Your task to perform on an android device: Go to wifi settings Image 0: 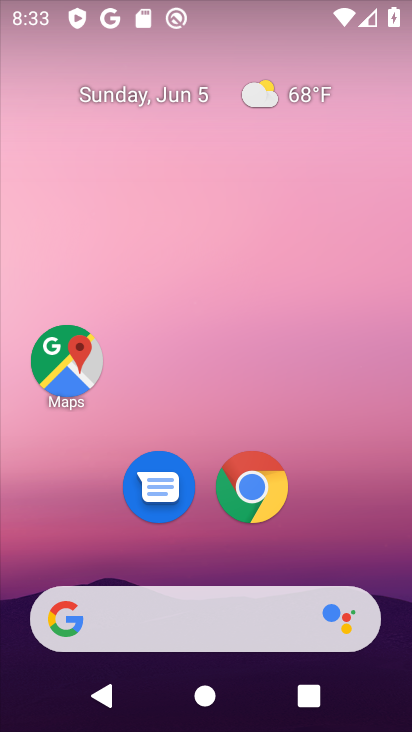
Step 0: drag from (129, 38) to (192, 524)
Your task to perform on an android device: Go to wifi settings Image 1: 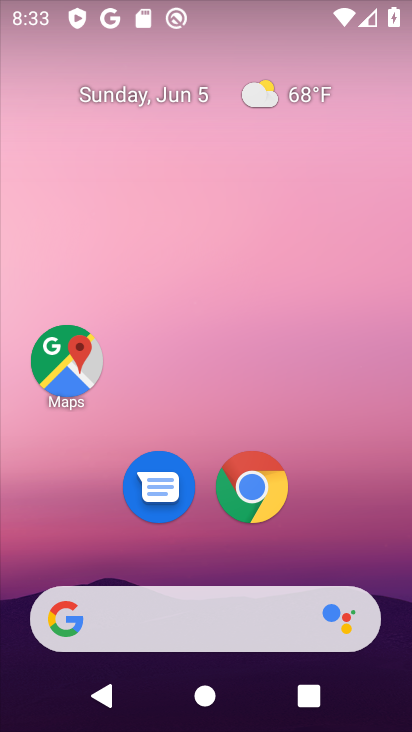
Step 1: drag from (67, 13) to (90, 375)
Your task to perform on an android device: Go to wifi settings Image 2: 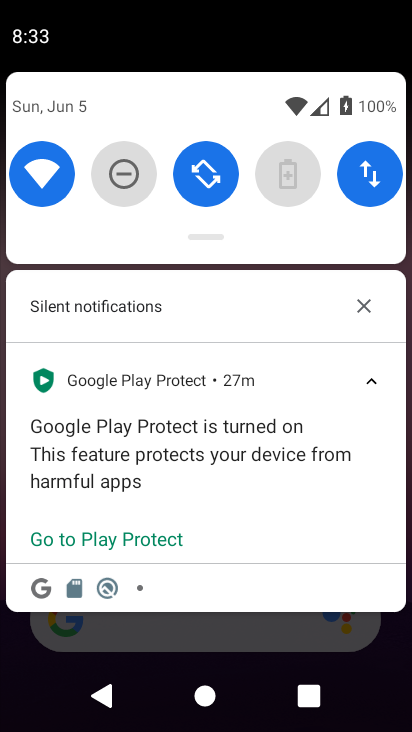
Step 2: click (38, 172)
Your task to perform on an android device: Go to wifi settings Image 3: 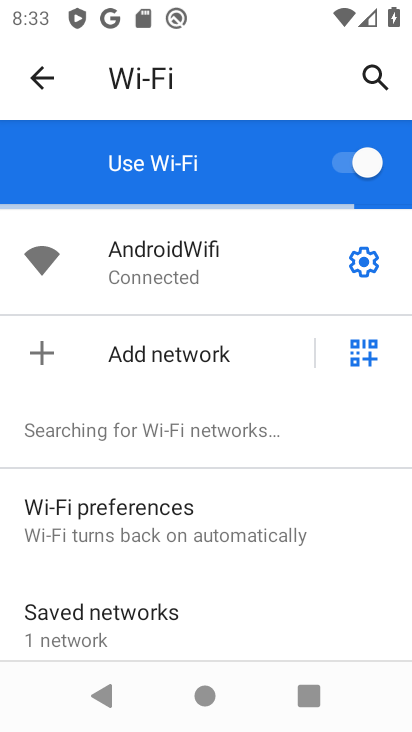
Step 3: task complete